Your task to perform on an android device: turn off airplane mode Image 0: 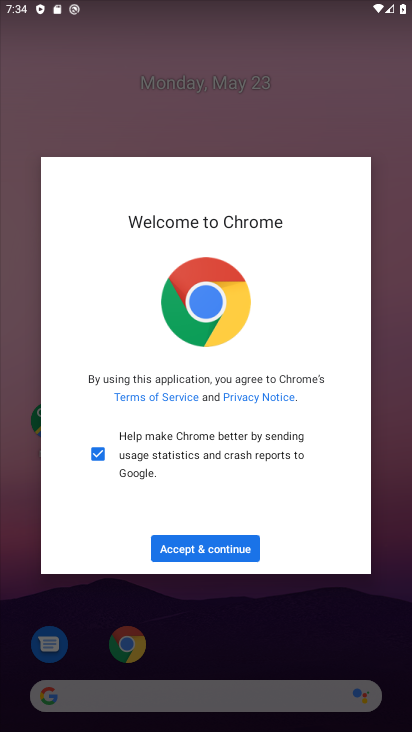
Step 0: press back button
Your task to perform on an android device: turn off airplane mode Image 1: 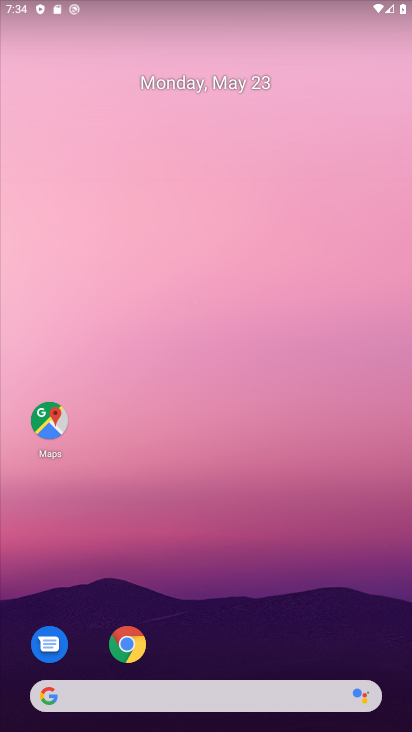
Step 1: task complete